Your task to perform on an android device: remove spam from my inbox in the gmail app Image 0: 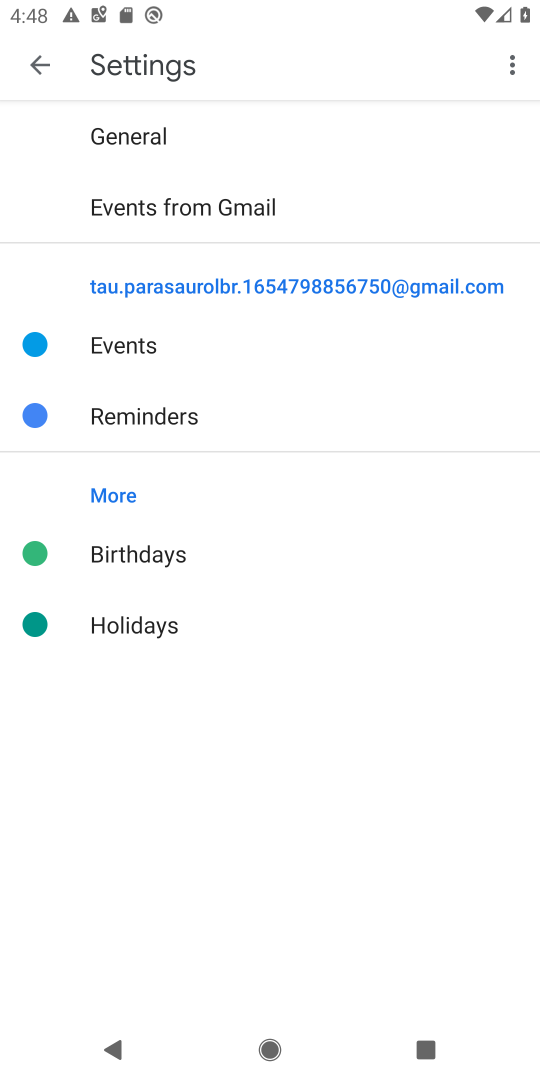
Step 0: press back button
Your task to perform on an android device: remove spam from my inbox in the gmail app Image 1: 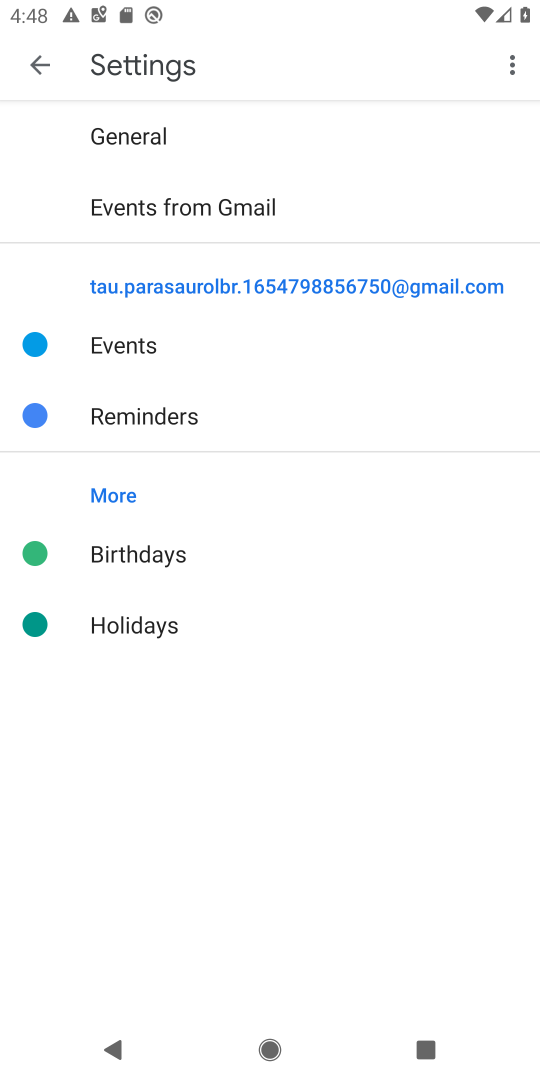
Step 1: press back button
Your task to perform on an android device: remove spam from my inbox in the gmail app Image 2: 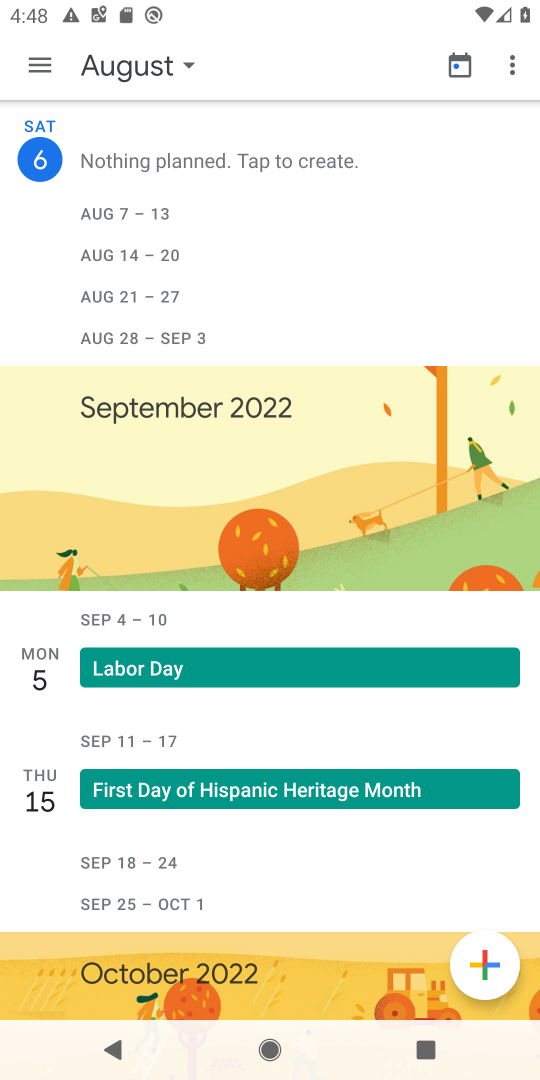
Step 2: press back button
Your task to perform on an android device: remove spam from my inbox in the gmail app Image 3: 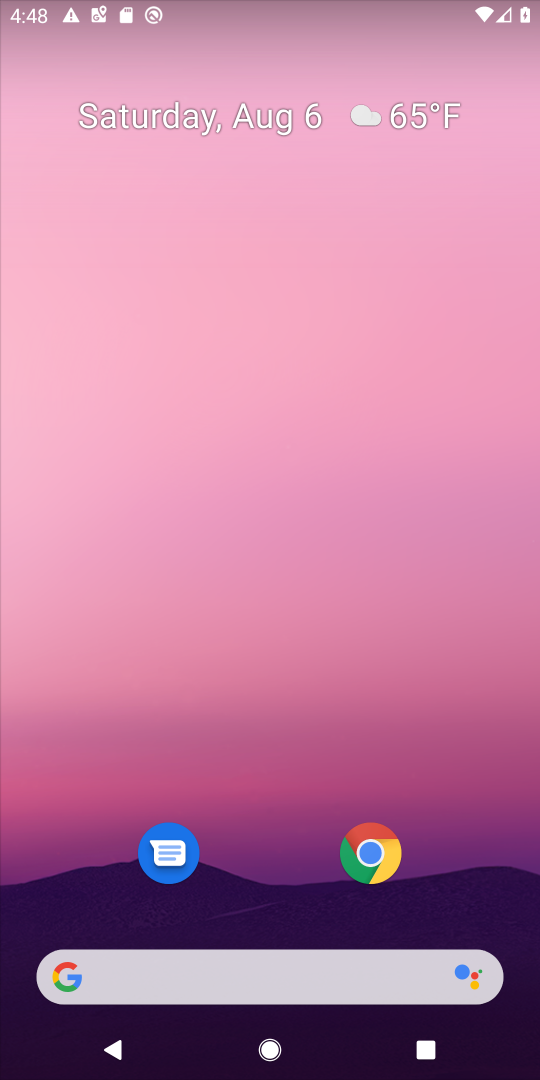
Step 3: drag from (225, 894) to (403, 32)
Your task to perform on an android device: remove spam from my inbox in the gmail app Image 4: 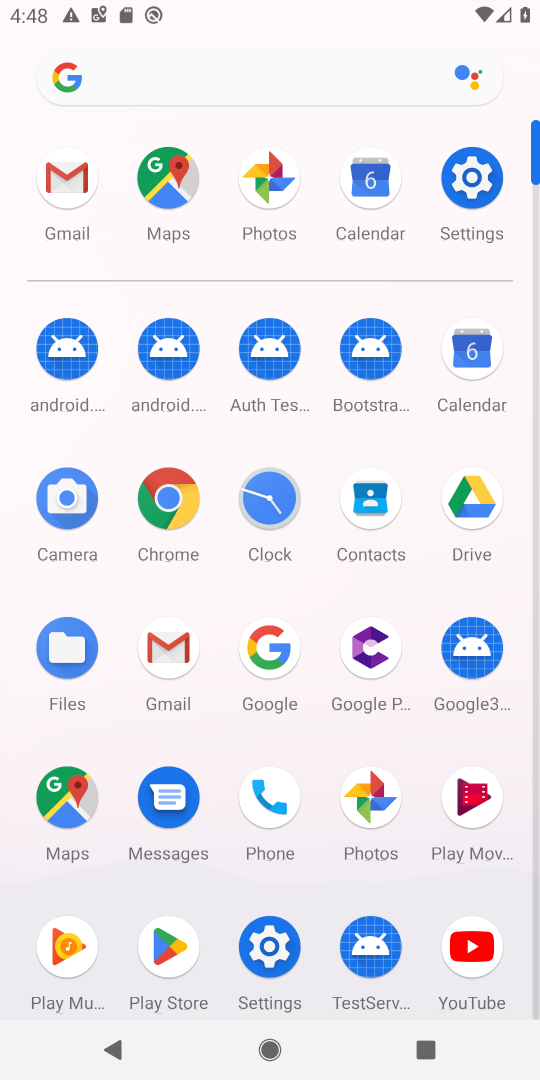
Step 4: click (80, 182)
Your task to perform on an android device: remove spam from my inbox in the gmail app Image 5: 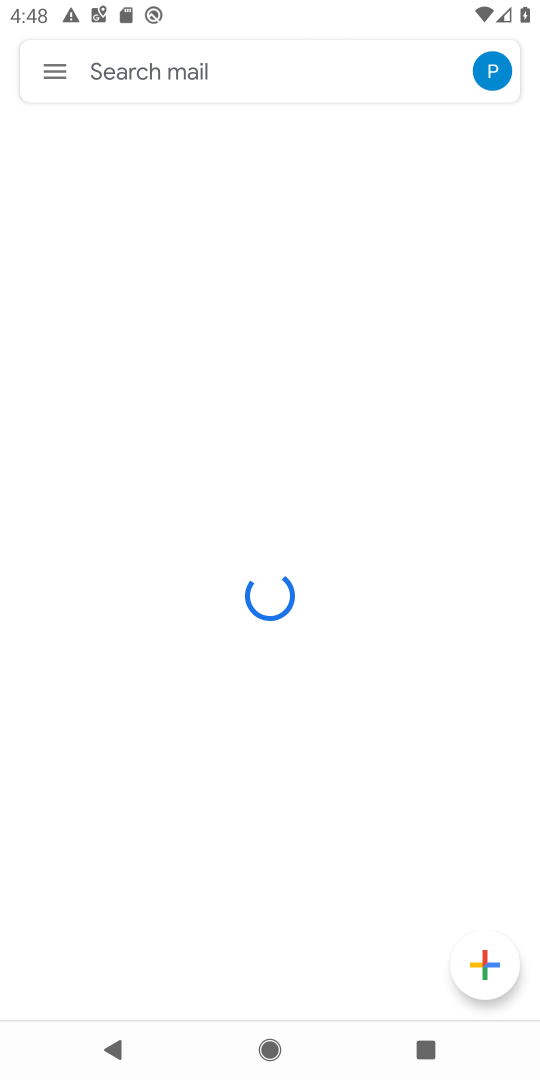
Step 5: click (60, 67)
Your task to perform on an android device: remove spam from my inbox in the gmail app Image 6: 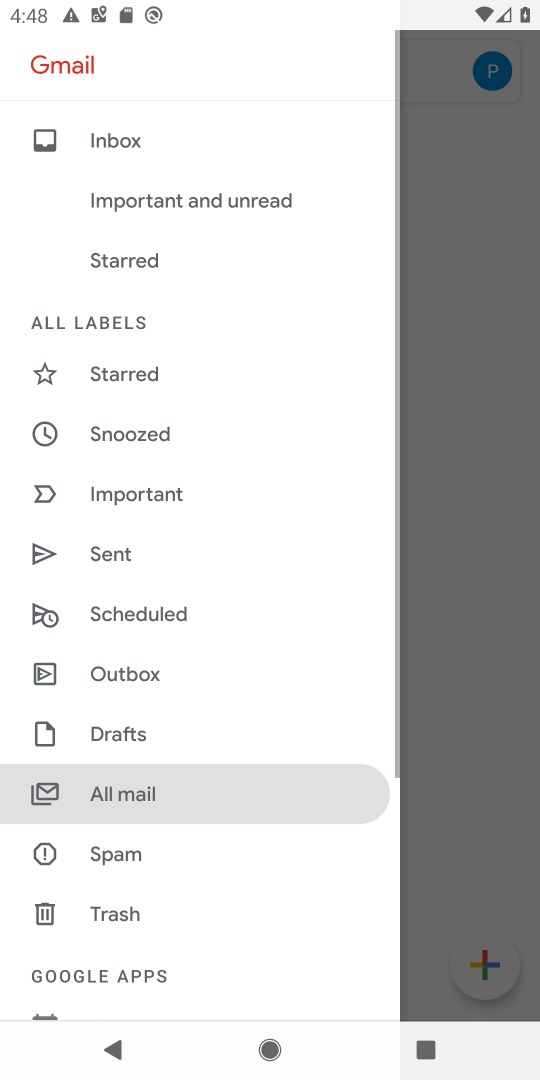
Step 6: click (136, 864)
Your task to perform on an android device: remove spam from my inbox in the gmail app Image 7: 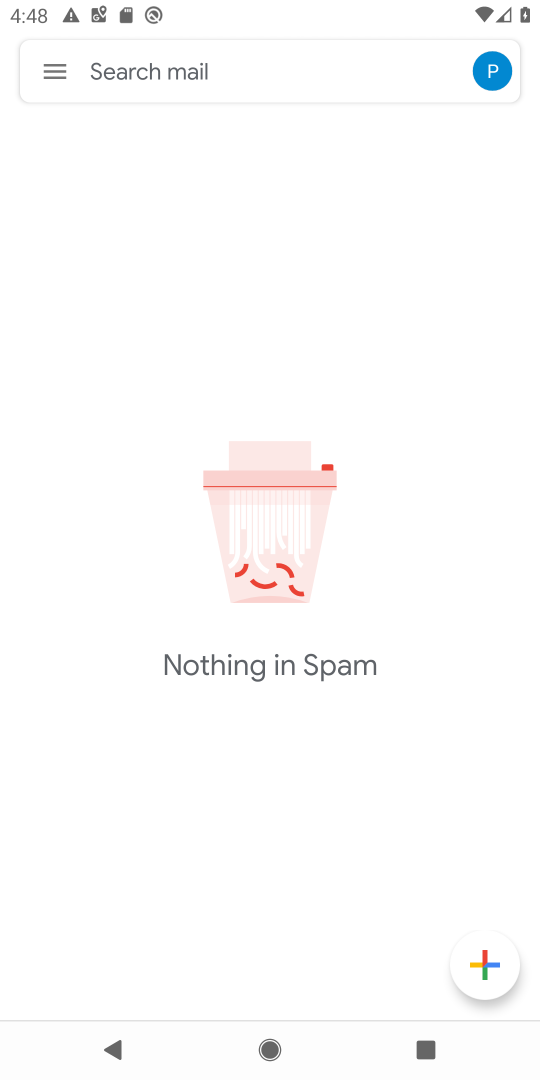
Step 7: task complete